Your task to perform on an android device: turn pop-ups on in chrome Image 0: 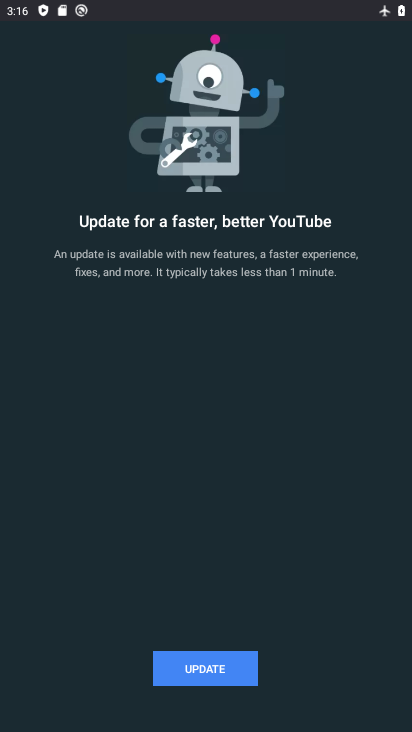
Step 0: press back button
Your task to perform on an android device: turn pop-ups on in chrome Image 1: 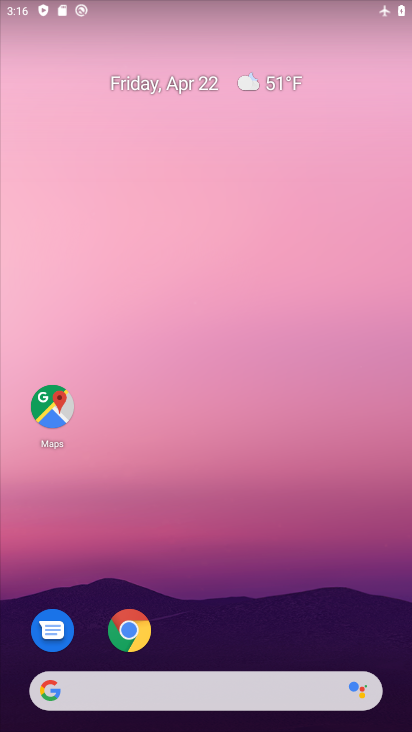
Step 1: drag from (325, 612) to (187, 2)
Your task to perform on an android device: turn pop-ups on in chrome Image 2: 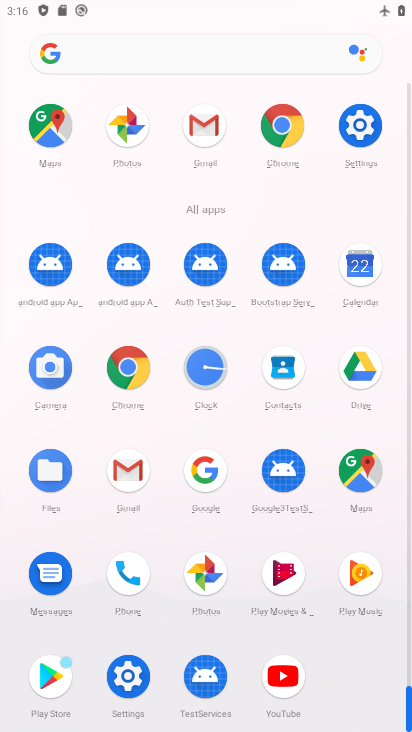
Step 2: click (281, 122)
Your task to perform on an android device: turn pop-ups on in chrome Image 3: 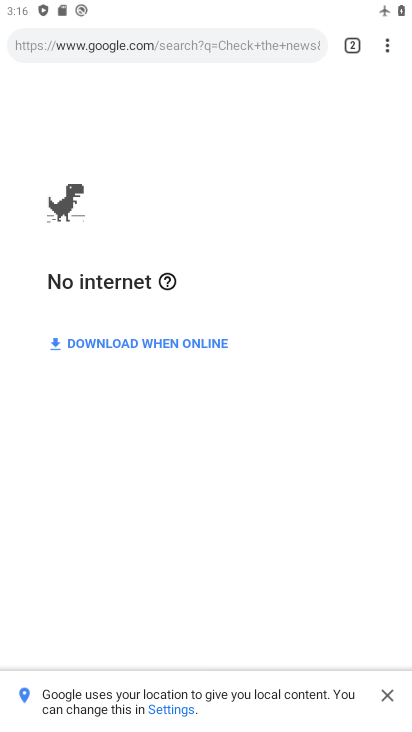
Step 3: drag from (384, 46) to (231, 493)
Your task to perform on an android device: turn pop-ups on in chrome Image 4: 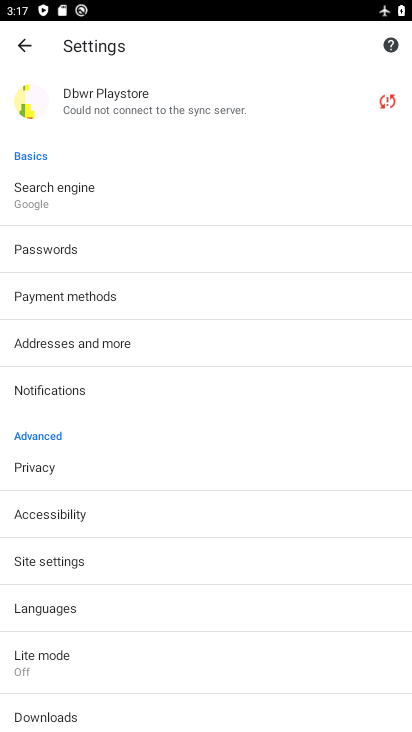
Step 4: drag from (239, 541) to (258, 160)
Your task to perform on an android device: turn pop-ups on in chrome Image 5: 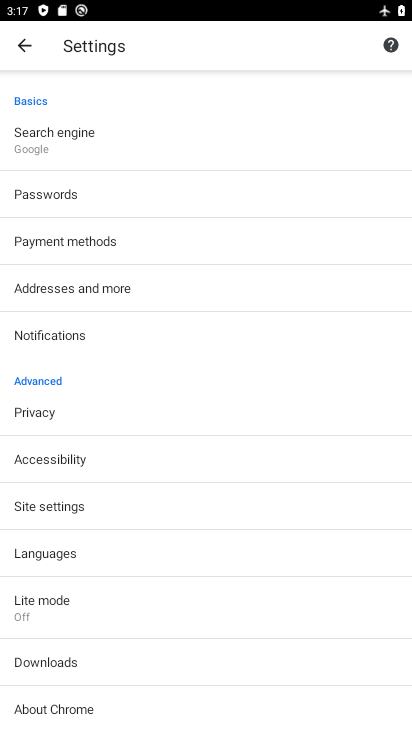
Step 5: drag from (203, 622) to (219, 274)
Your task to perform on an android device: turn pop-ups on in chrome Image 6: 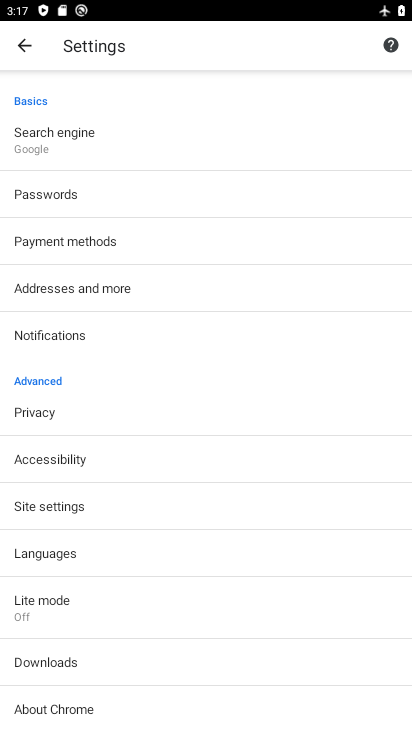
Step 6: drag from (237, 605) to (228, 161)
Your task to perform on an android device: turn pop-ups on in chrome Image 7: 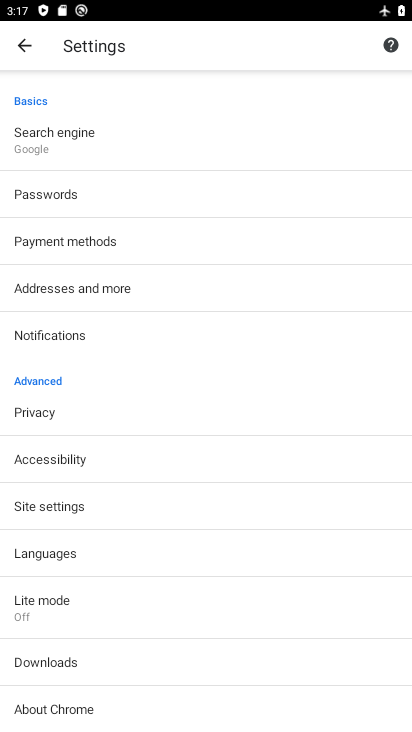
Step 7: drag from (239, 159) to (256, 581)
Your task to perform on an android device: turn pop-ups on in chrome Image 8: 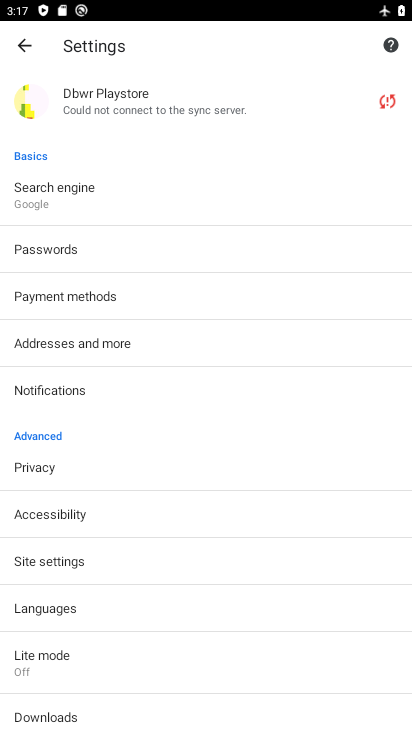
Step 8: drag from (275, 506) to (259, 198)
Your task to perform on an android device: turn pop-ups on in chrome Image 9: 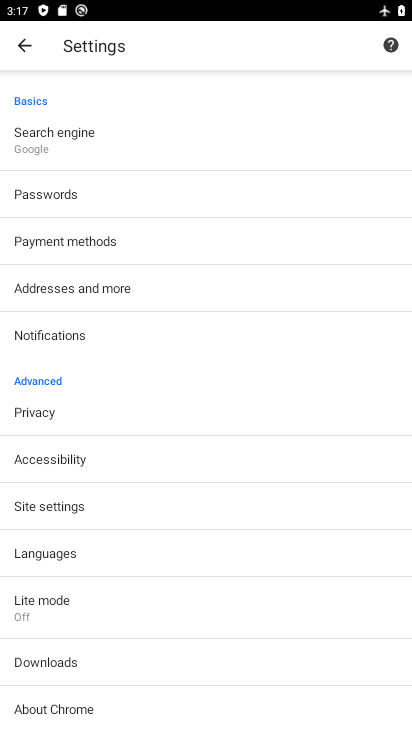
Step 9: click (78, 506)
Your task to perform on an android device: turn pop-ups on in chrome Image 10: 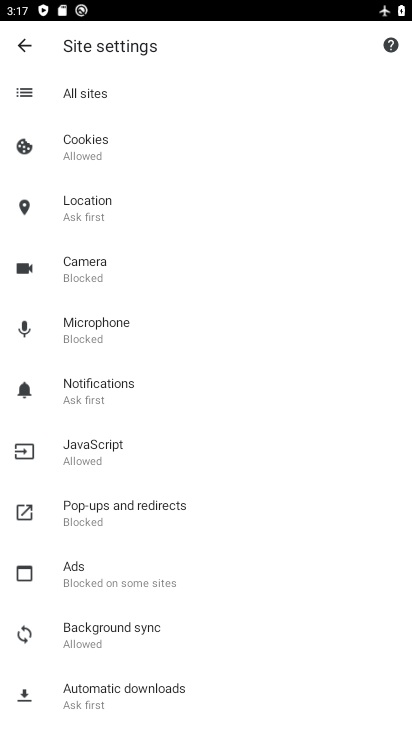
Step 10: click (129, 514)
Your task to perform on an android device: turn pop-ups on in chrome Image 11: 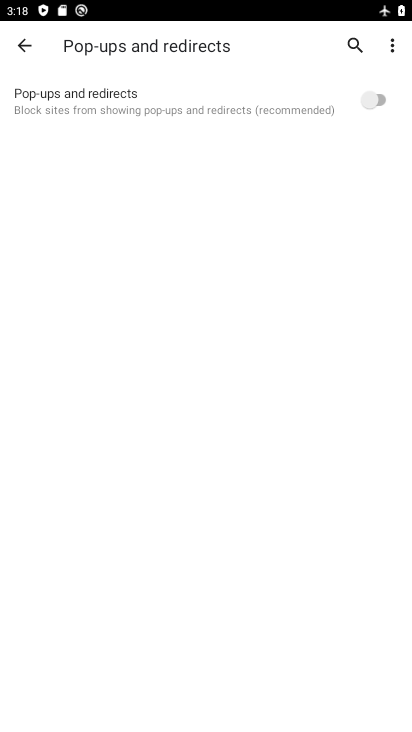
Step 11: click (377, 99)
Your task to perform on an android device: turn pop-ups on in chrome Image 12: 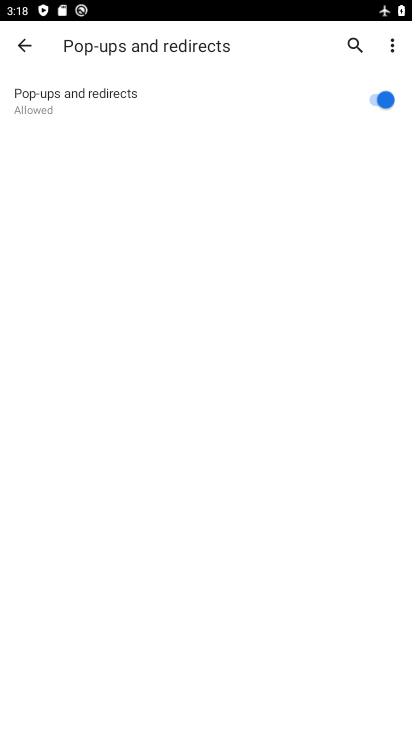
Step 12: task complete